Your task to perform on an android device: change keyboard looks Image 0: 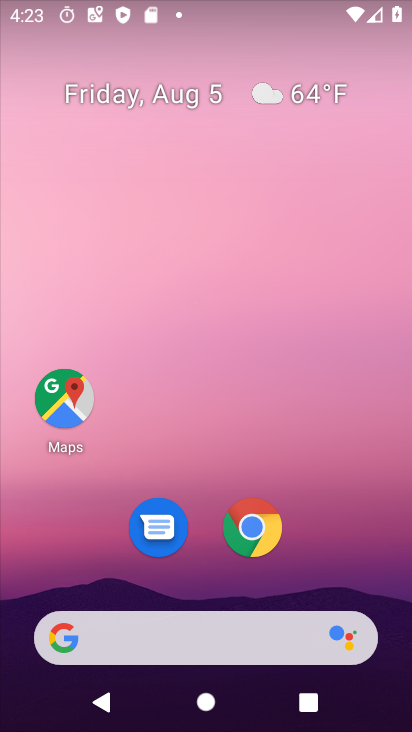
Step 0: drag from (207, 581) to (243, 52)
Your task to perform on an android device: change keyboard looks Image 1: 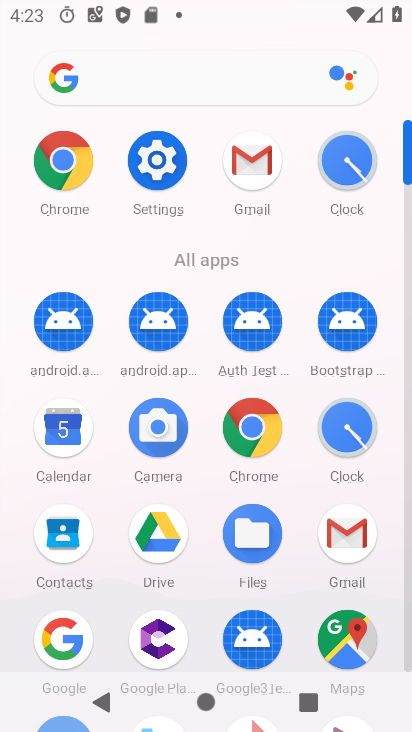
Step 1: click (161, 142)
Your task to perform on an android device: change keyboard looks Image 2: 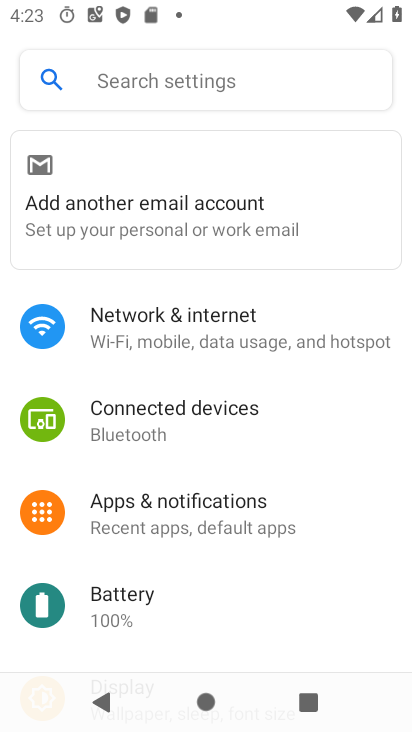
Step 2: drag from (202, 596) to (157, 82)
Your task to perform on an android device: change keyboard looks Image 3: 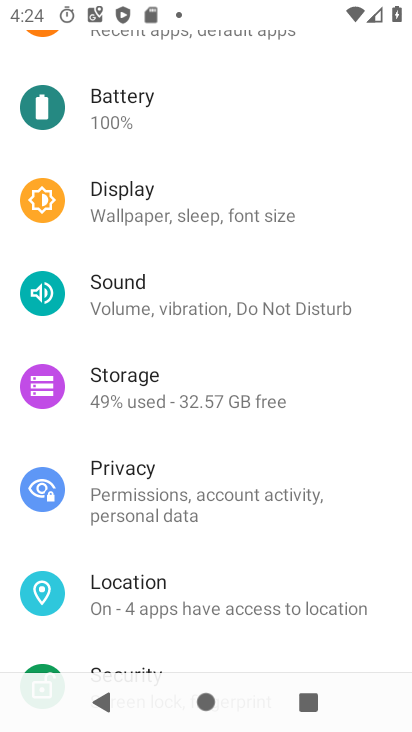
Step 3: drag from (149, 608) to (213, 46)
Your task to perform on an android device: change keyboard looks Image 4: 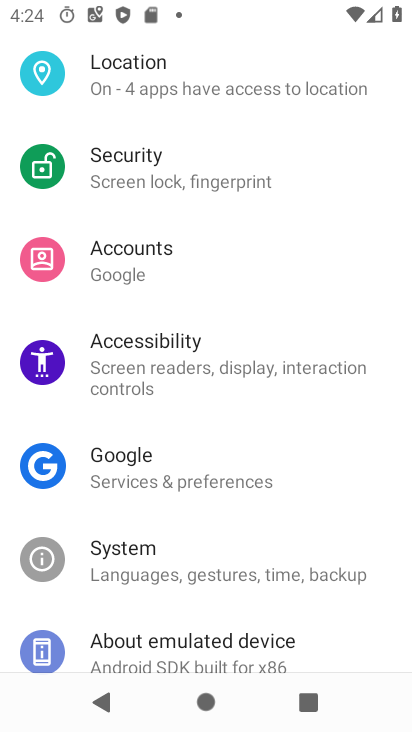
Step 4: click (167, 547)
Your task to perform on an android device: change keyboard looks Image 5: 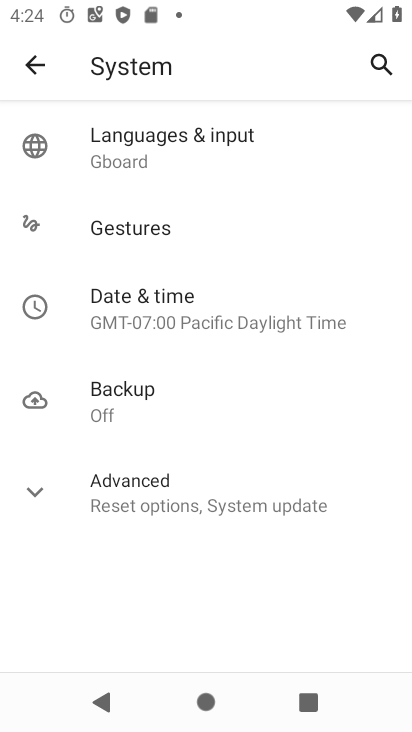
Step 5: click (78, 143)
Your task to perform on an android device: change keyboard looks Image 6: 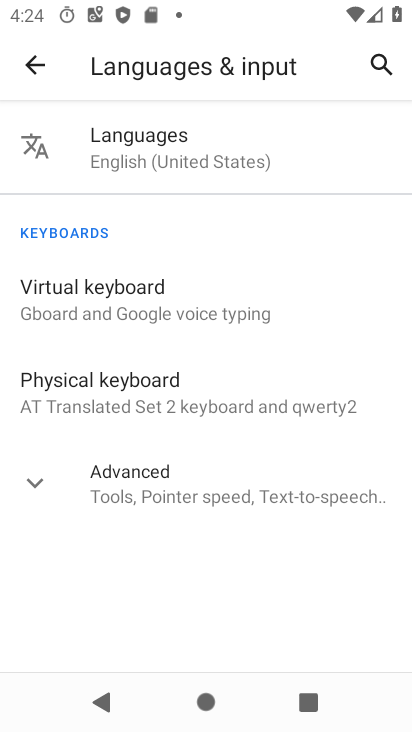
Step 6: click (116, 293)
Your task to perform on an android device: change keyboard looks Image 7: 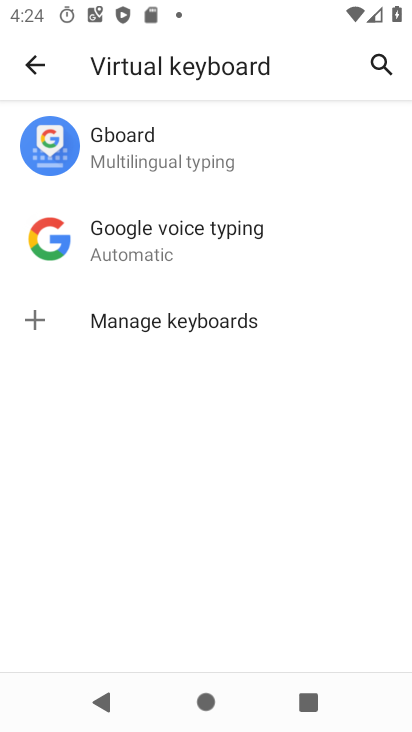
Step 7: click (148, 133)
Your task to perform on an android device: change keyboard looks Image 8: 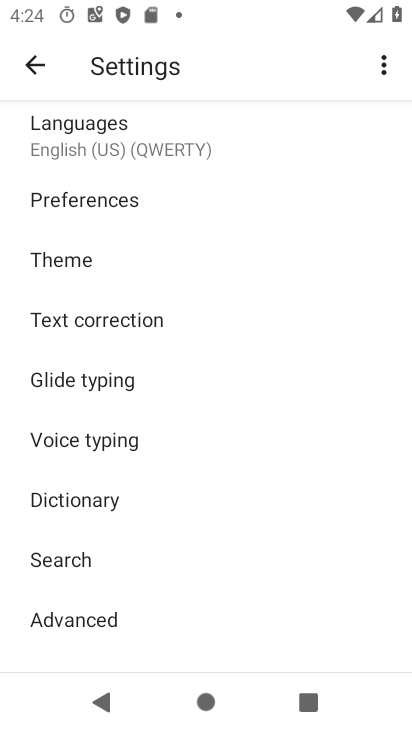
Step 8: click (98, 258)
Your task to perform on an android device: change keyboard looks Image 9: 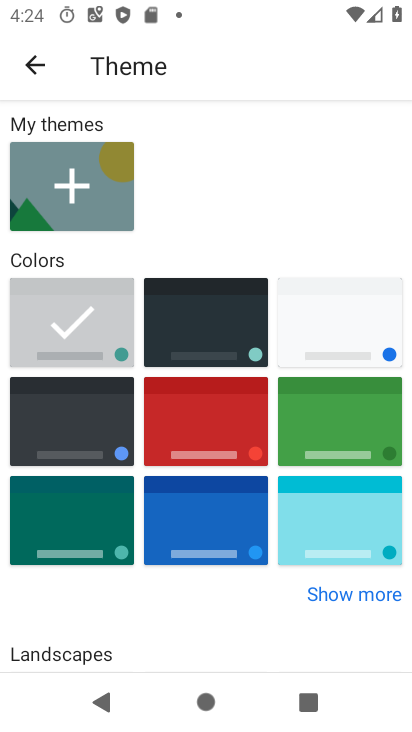
Step 9: click (202, 432)
Your task to perform on an android device: change keyboard looks Image 10: 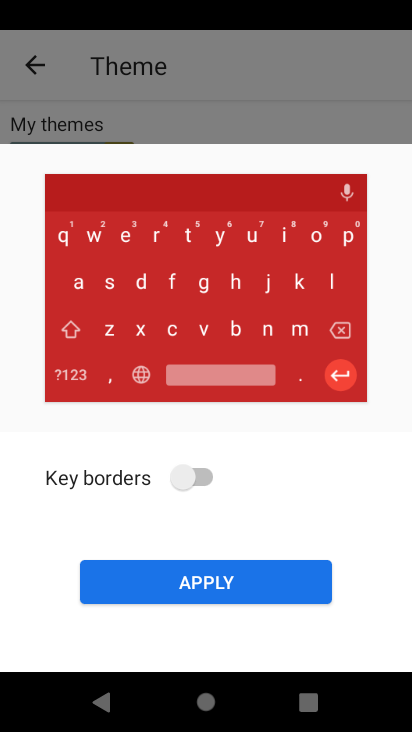
Step 10: click (203, 581)
Your task to perform on an android device: change keyboard looks Image 11: 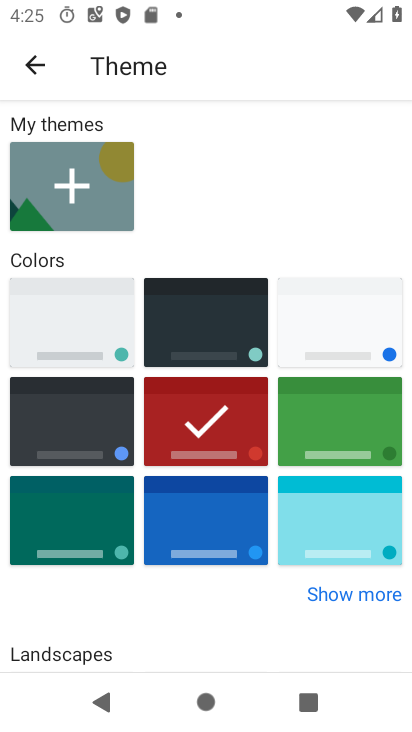
Step 11: task complete